Your task to perform on an android device: Open accessibility settings Image 0: 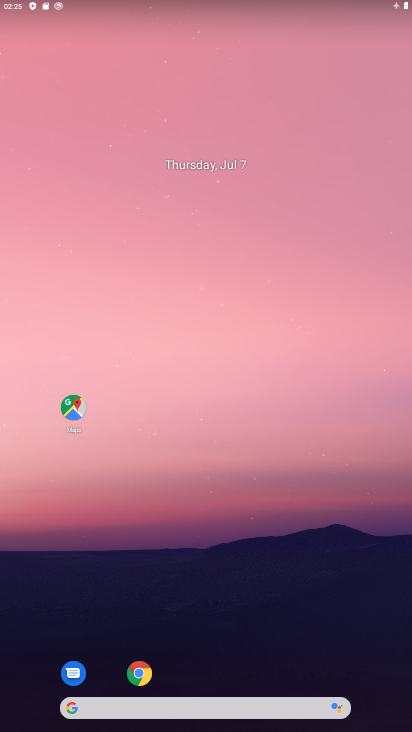
Step 0: drag from (222, 421) to (272, 1)
Your task to perform on an android device: Open accessibility settings Image 1: 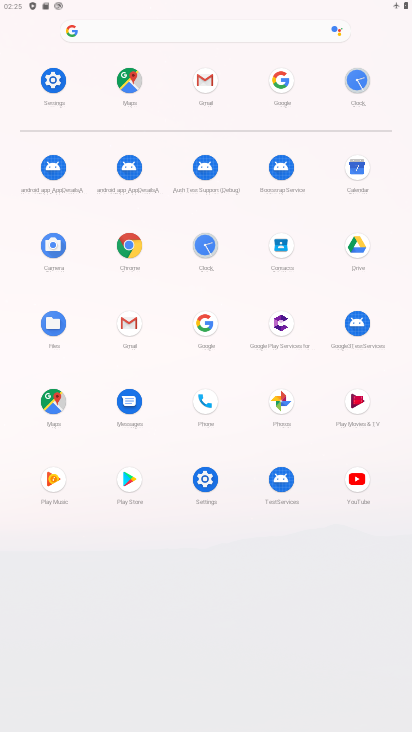
Step 1: click (60, 73)
Your task to perform on an android device: Open accessibility settings Image 2: 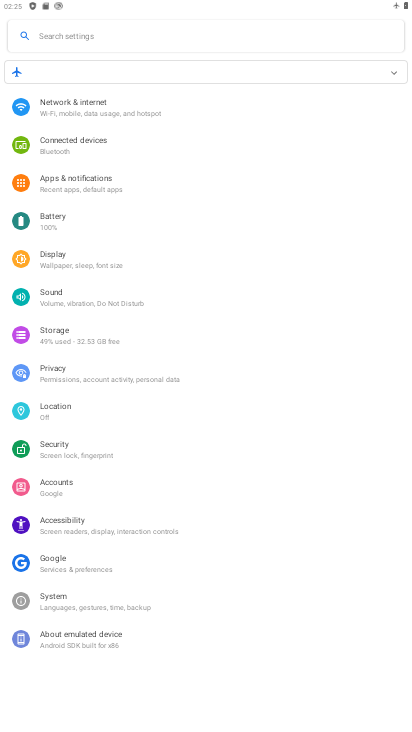
Step 2: drag from (118, 622) to (132, 408)
Your task to perform on an android device: Open accessibility settings Image 3: 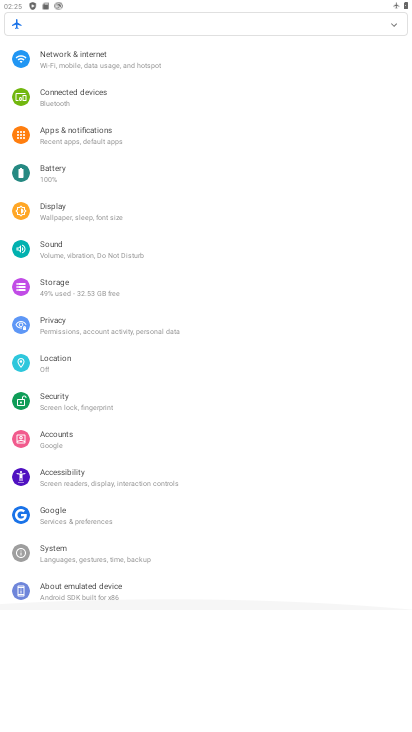
Step 3: click (88, 469)
Your task to perform on an android device: Open accessibility settings Image 4: 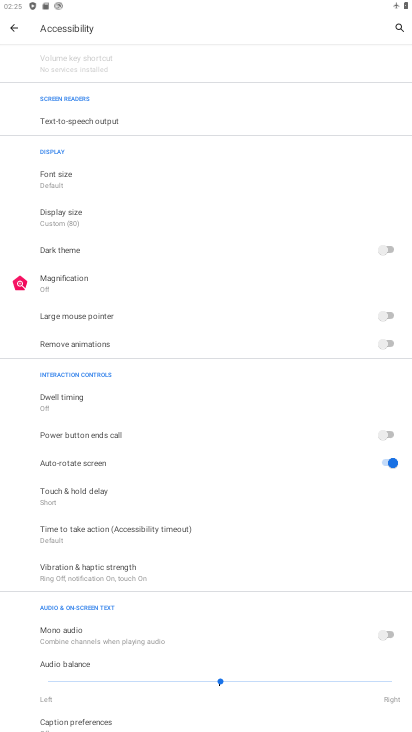
Step 4: task complete